Your task to perform on an android device: turn off data saver in the chrome app Image 0: 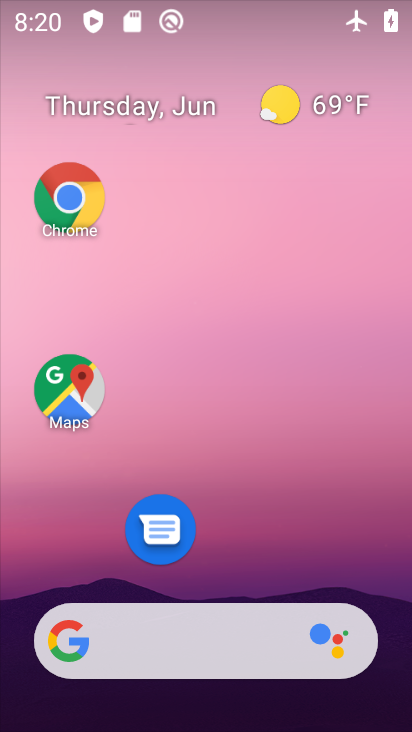
Step 0: click (76, 204)
Your task to perform on an android device: turn off data saver in the chrome app Image 1: 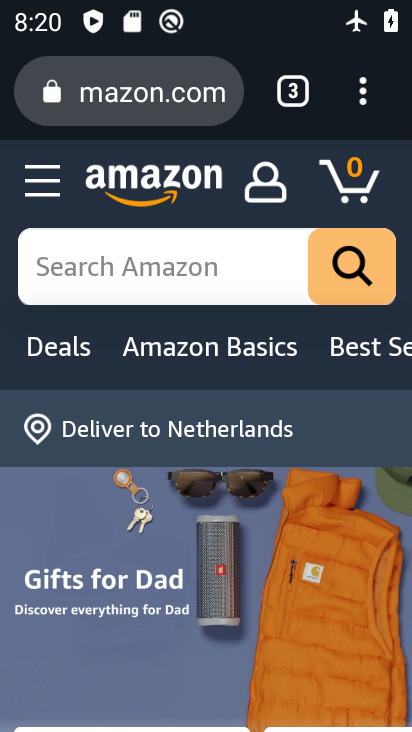
Step 1: click (362, 107)
Your task to perform on an android device: turn off data saver in the chrome app Image 2: 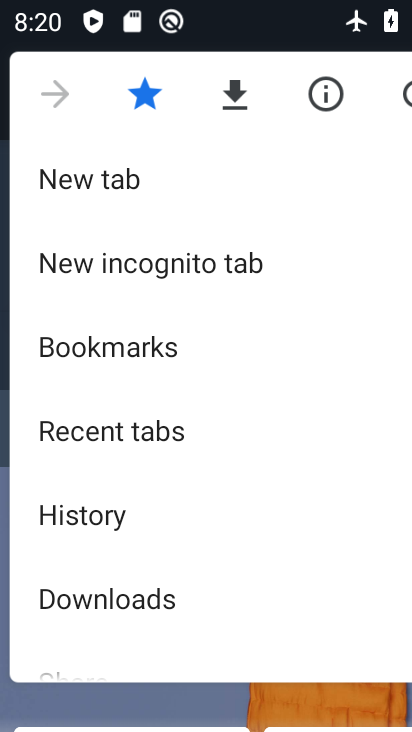
Step 2: drag from (158, 606) to (181, 372)
Your task to perform on an android device: turn off data saver in the chrome app Image 3: 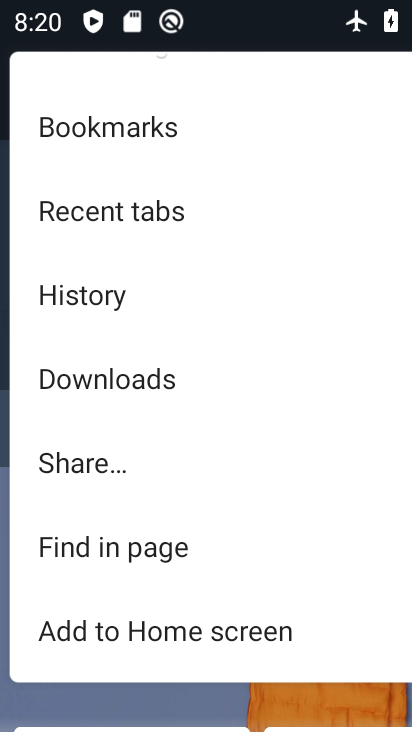
Step 3: drag from (171, 500) to (166, 148)
Your task to perform on an android device: turn off data saver in the chrome app Image 4: 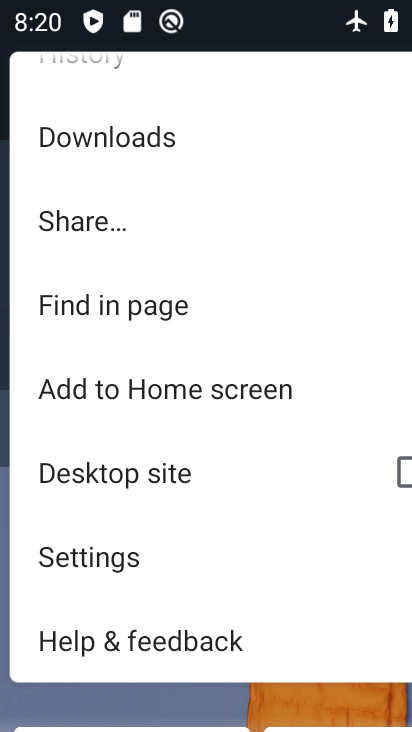
Step 4: click (119, 571)
Your task to perform on an android device: turn off data saver in the chrome app Image 5: 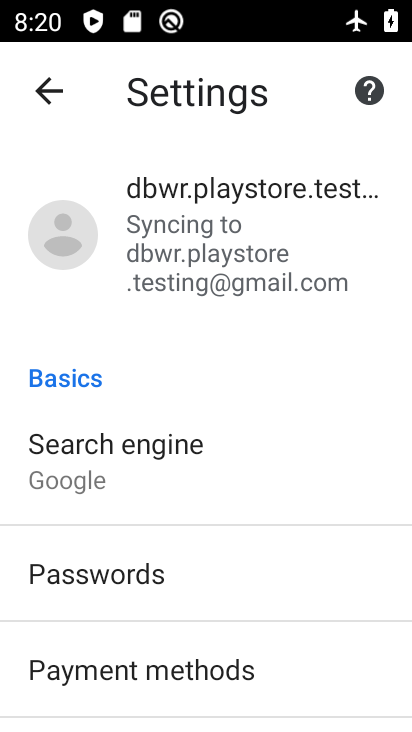
Step 5: drag from (119, 571) to (77, 173)
Your task to perform on an android device: turn off data saver in the chrome app Image 6: 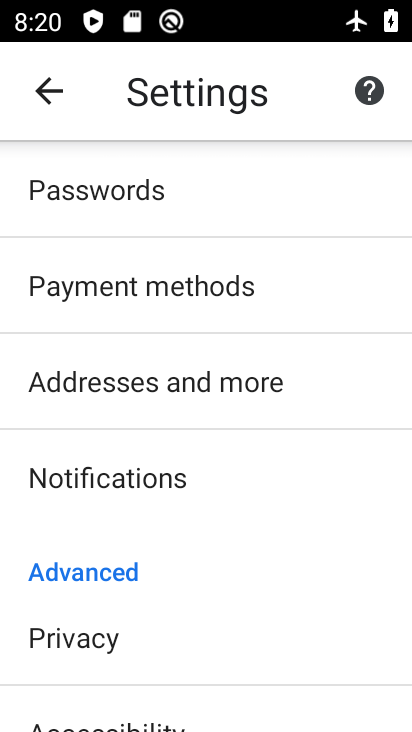
Step 6: drag from (174, 639) to (161, 263)
Your task to perform on an android device: turn off data saver in the chrome app Image 7: 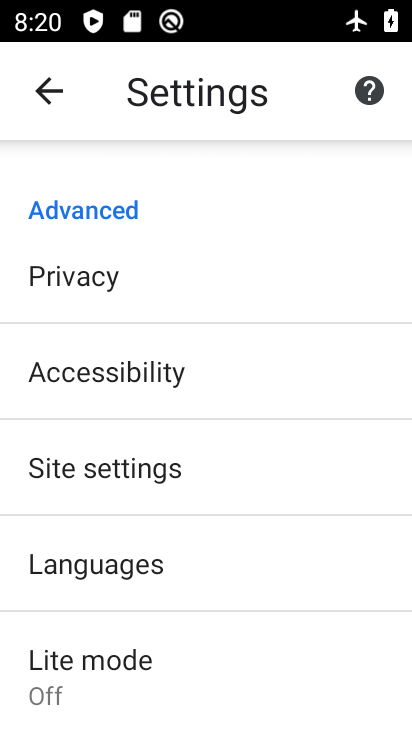
Step 7: click (141, 675)
Your task to perform on an android device: turn off data saver in the chrome app Image 8: 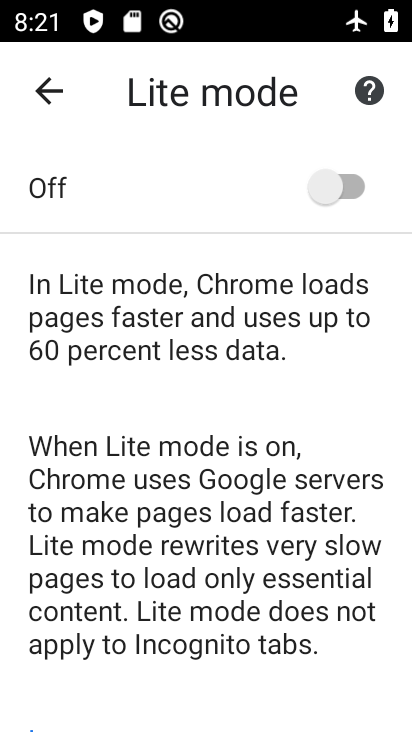
Step 8: task complete